Your task to perform on an android device: Open wifi settings Image 0: 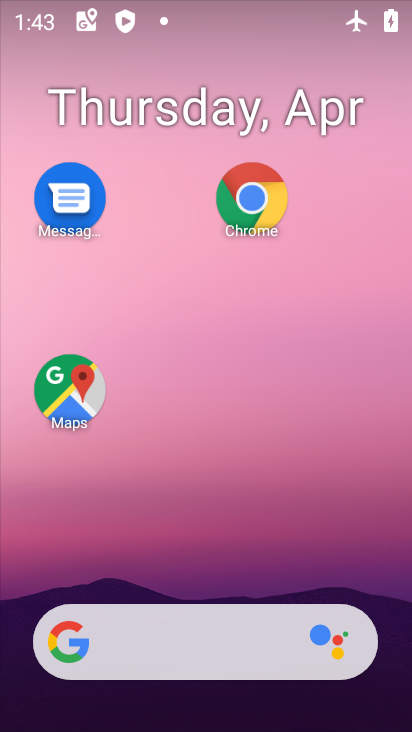
Step 0: drag from (200, 586) to (134, 36)
Your task to perform on an android device: Open wifi settings Image 1: 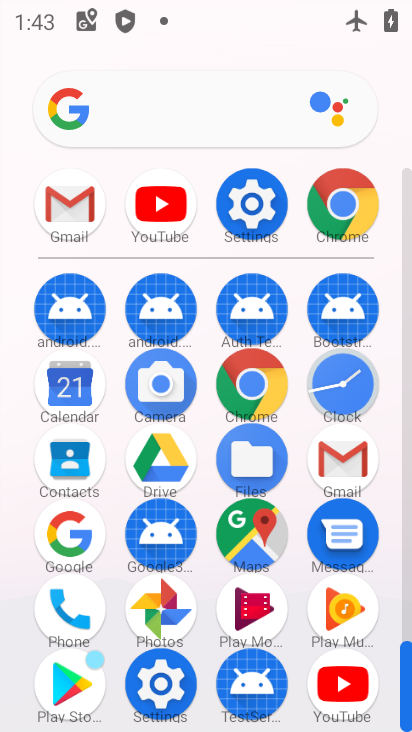
Step 1: click (170, 666)
Your task to perform on an android device: Open wifi settings Image 2: 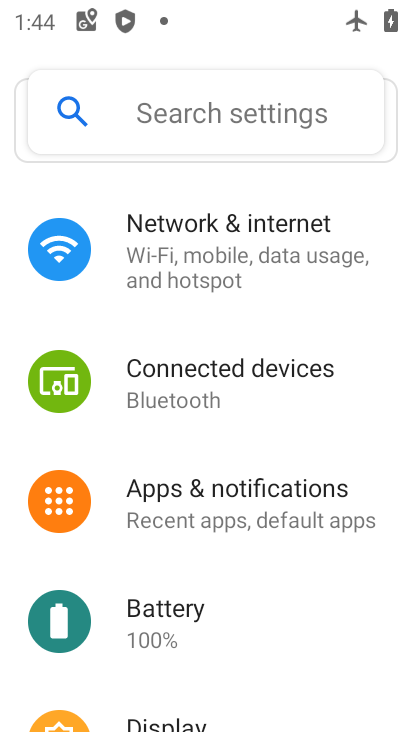
Step 2: click (167, 264)
Your task to perform on an android device: Open wifi settings Image 3: 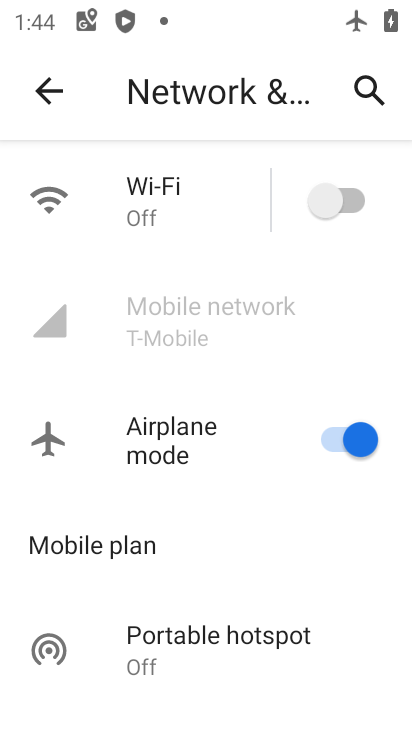
Step 3: click (201, 198)
Your task to perform on an android device: Open wifi settings Image 4: 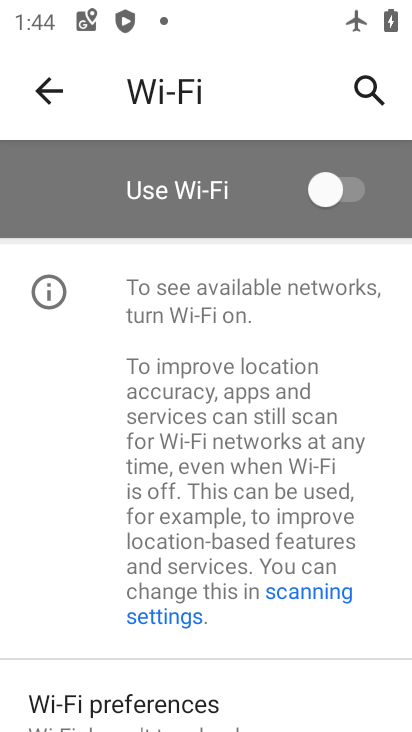
Step 4: task complete